Your task to perform on an android device: move a message to another label in the gmail app Image 0: 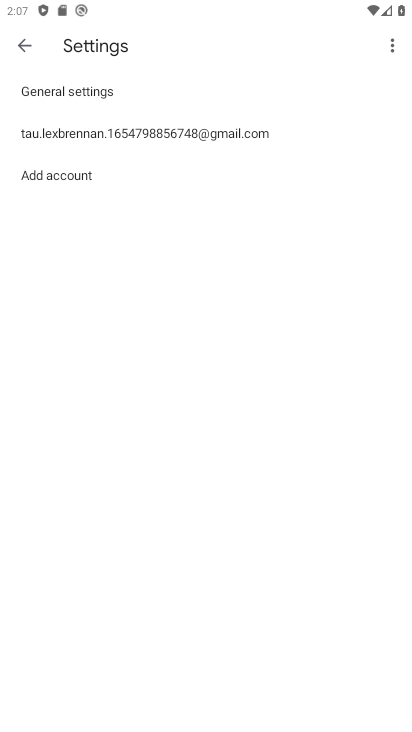
Step 0: click (11, 31)
Your task to perform on an android device: move a message to another label in the gmail app Image 1: 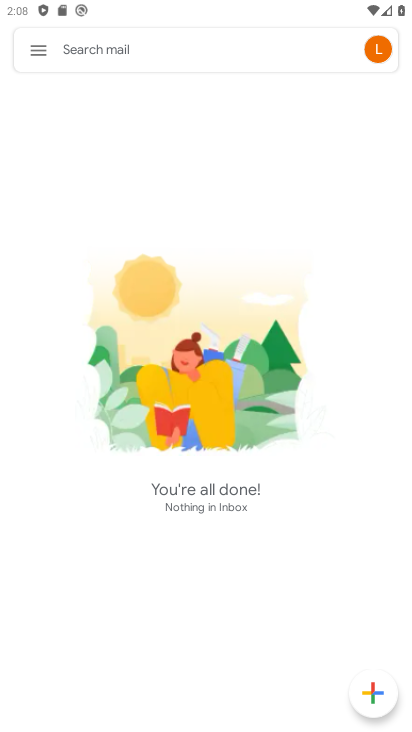
Step 1: press back button
Your task to perform on an android device: move a message to another label in the gmail app Image 2: 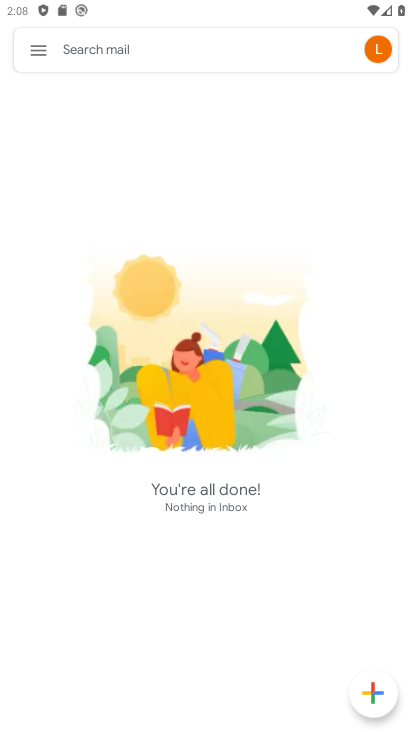
Step 2: press back button
Your task to perform on an android device: move a message to another label in the gmail app Image 3: 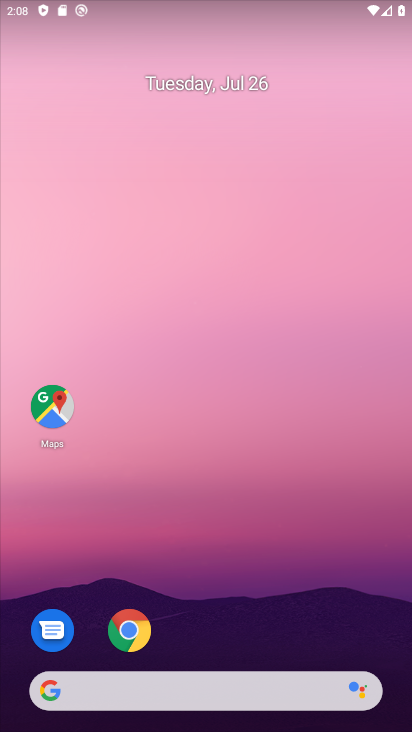
Step 3: drag from (228, 621) to (174, 151)
Your task to perform on an android device: move a message to another label in the gmail app Image 4: 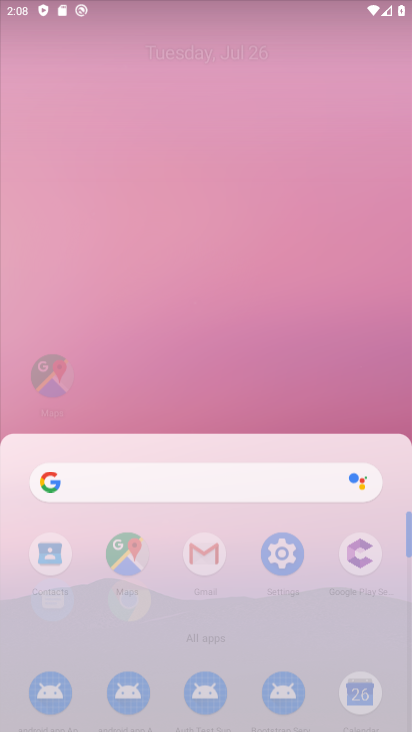
Step 4: drag from (204, 493) to (190, 216)
Your task to perform on an android device: move a message to another label in the gmail app Image 5: 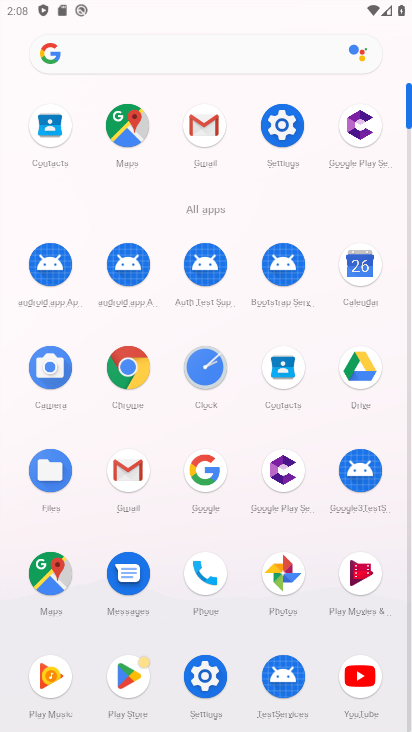
Step 5: click (114, 466)
Your task to perform on an android device: move a message to another label in the gmail app Image 6: 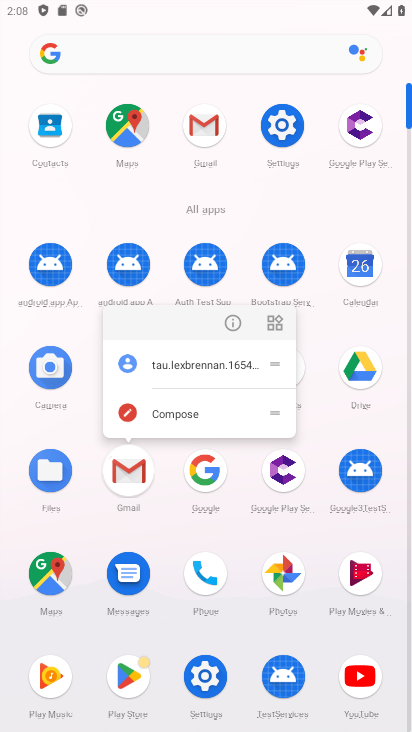
Step 6: click (116, 466)
Your task to perform on an android device: move a message to another label in the gmail app Image 7: 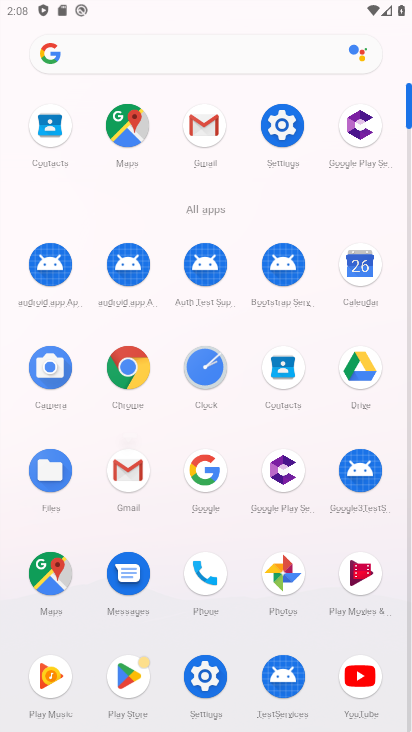
Step 7: click (119, 466)
Your task to perform on an android device: move a message to another label in the gmail app Image 8: 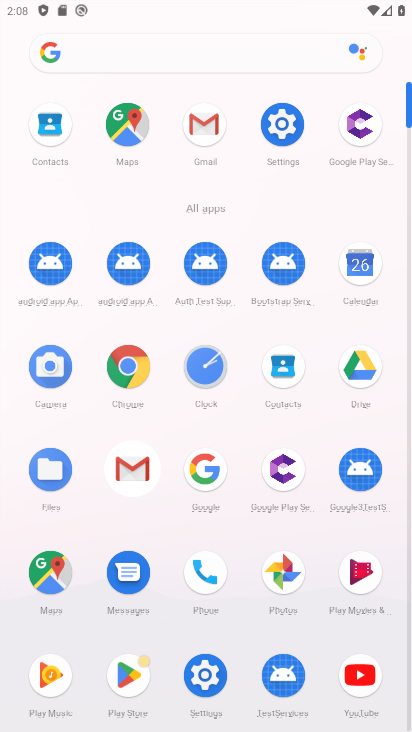
Step 8: click (122, 466)
Your task to perform on an android device: move a message to another label in the gmail app Image 9: 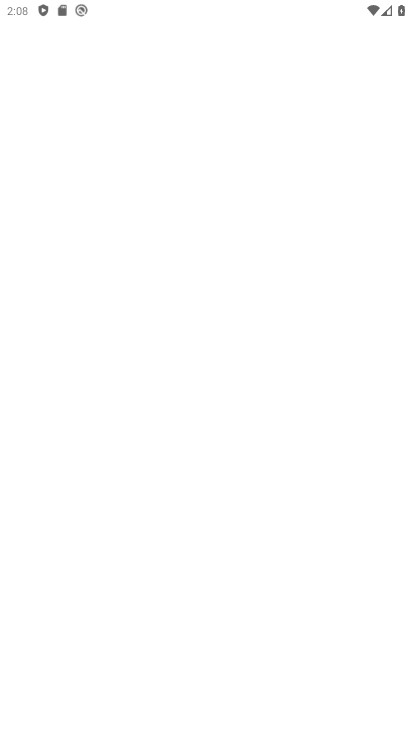
Step 9: click (123, 466)
Your task to perform on an android device: move a message to another label in the gmail app Image 10: 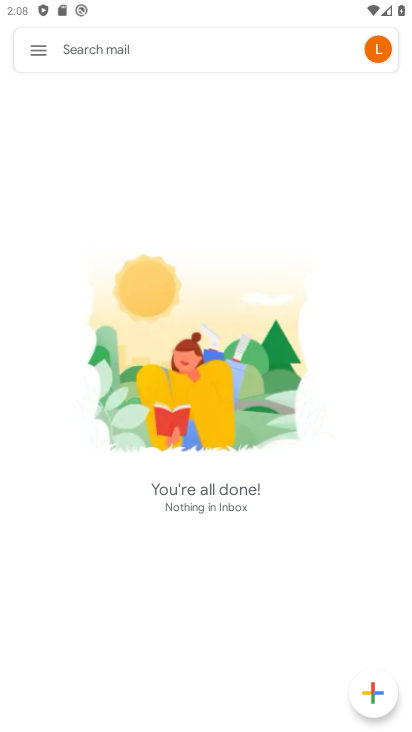
Step 10: click (26, 45)
Your task to perform on an android device: move a message to another label in the gmail app Image 11: 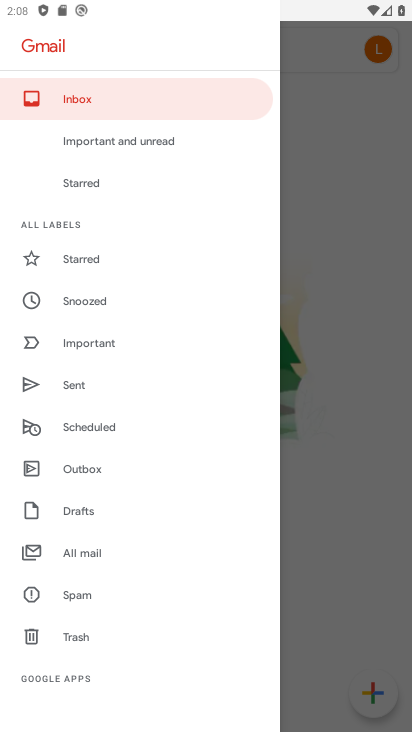
Step 11: drag from (111, 615) to (145, 376)
Your task to perform on an android device: move a message to another label in the gmail app Image 12: 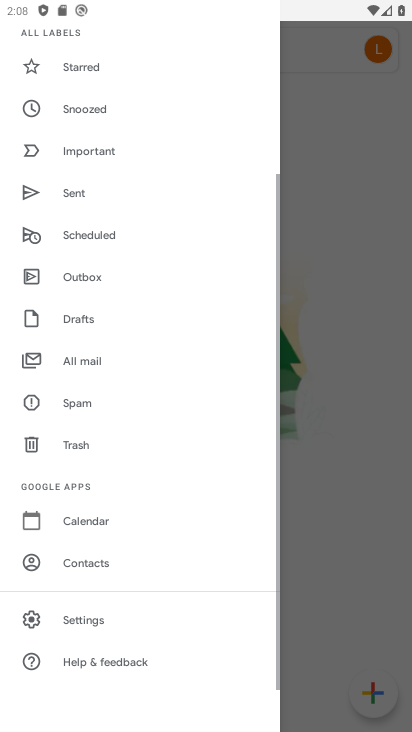
Step 12: drag from (163, 549) to (191, 295)
Your task to perform on an android device: move a message to another label in the gmail app Image 13: 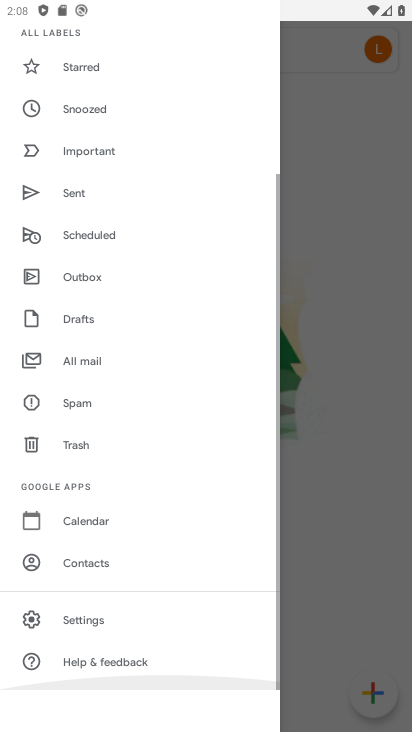
Step 13: drag from (151, 463) to (182, 333)
Your task to perform on an android device: move a message to another label in the gmail app Image 14: 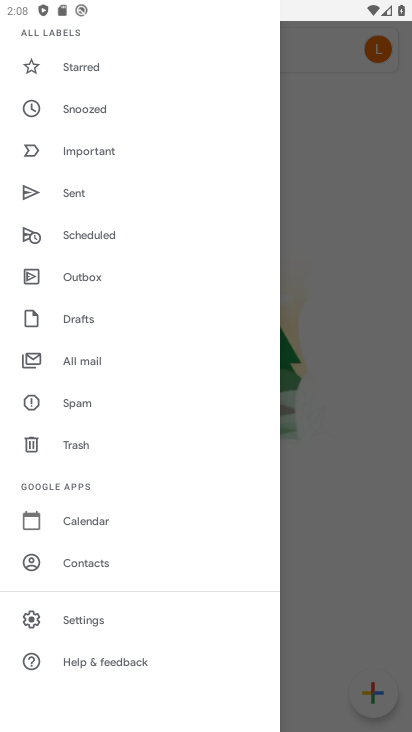
Step 14: click (76, 617)
Your task to perform on an android device: move a message to another label in the gmail app Image 15: 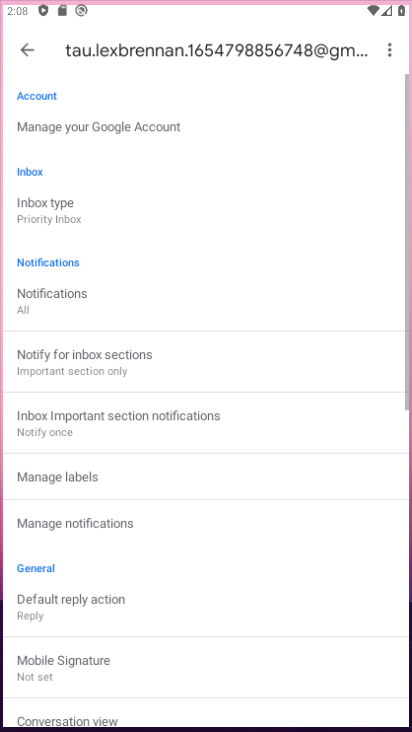
Step 15: click (88, 609)
Your task to perform on an android device: move a message to another label in the gmail app Image 16: 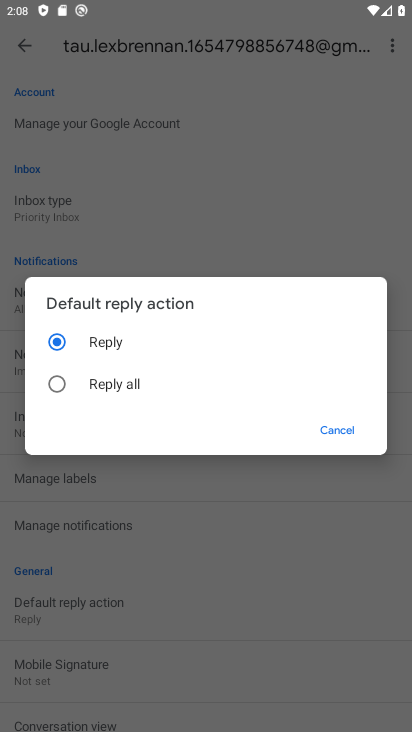
Step 16: click (234, 193)
Your task to perform on an android device: move a message to another label in the gmail app Image 17: 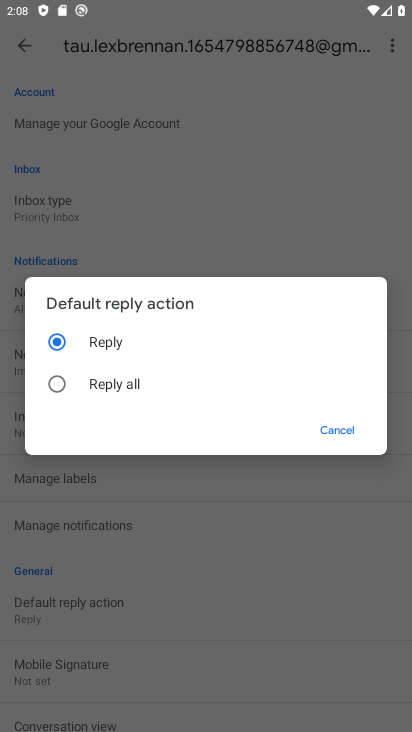
Step 17: click (244, 198)
Your task to perform on an android device: move a message to another label in the gmail app Image 18: 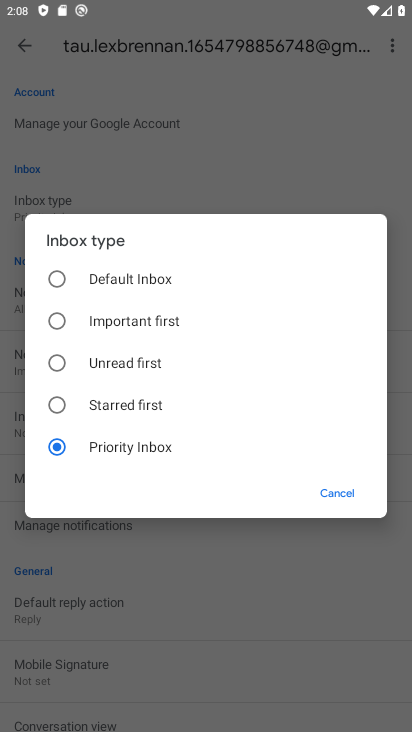
Step 18: click (333, 492)
Your task to perform on an android device: move a message to another label in the gmail app Image 19: 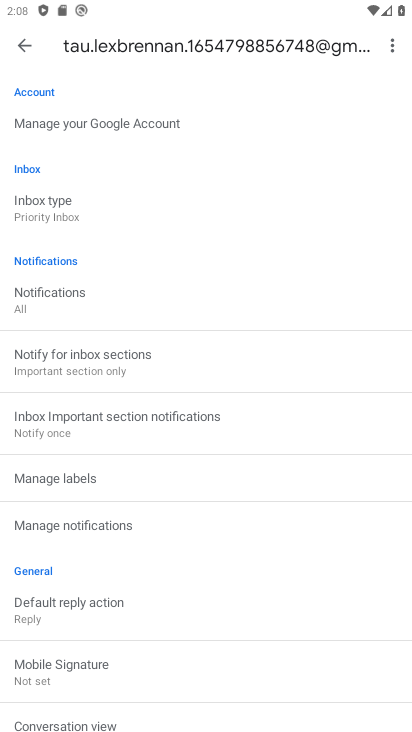
Step 19: click (29, 45)
Your task to perform on an android device: move a message to another label in the gmail app Image 20: 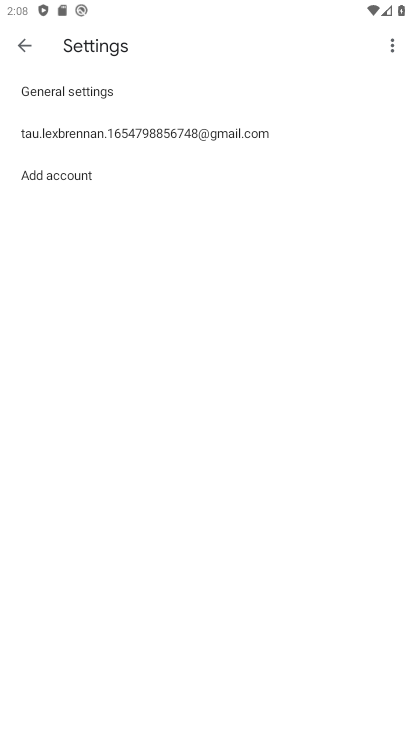
Step 20: click (20, 49)
Your task to perform on an android device: move a message to another label in the gmail app Image 21: 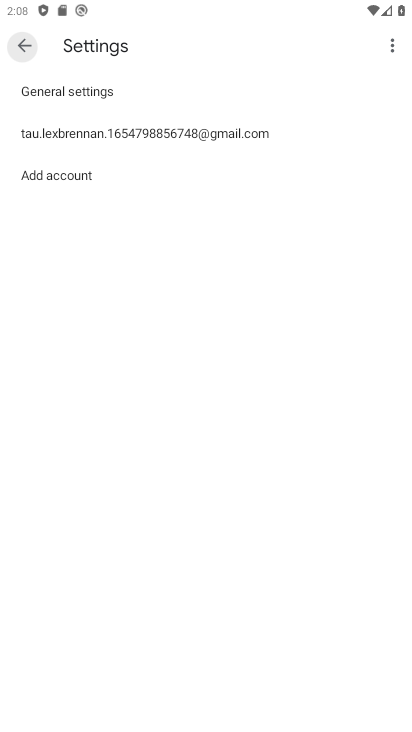
Step 21: click (17, 46)
Your task to perform on an android device: move a message to another label in the gmail app Image 22: 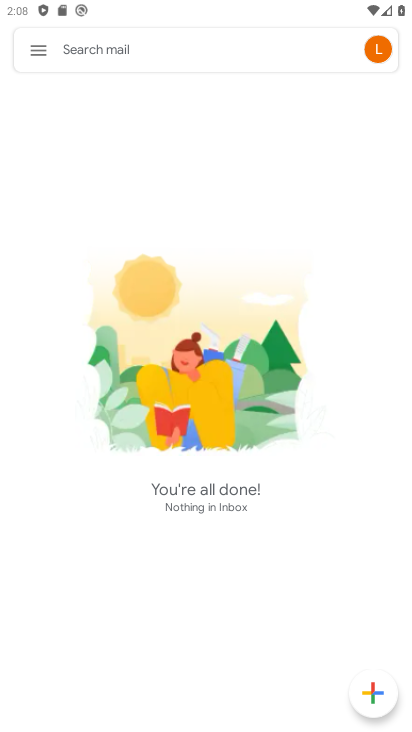
Step 22: press back button
Your task to perform on an android device: move a message to another label in the gmail app Image 23: 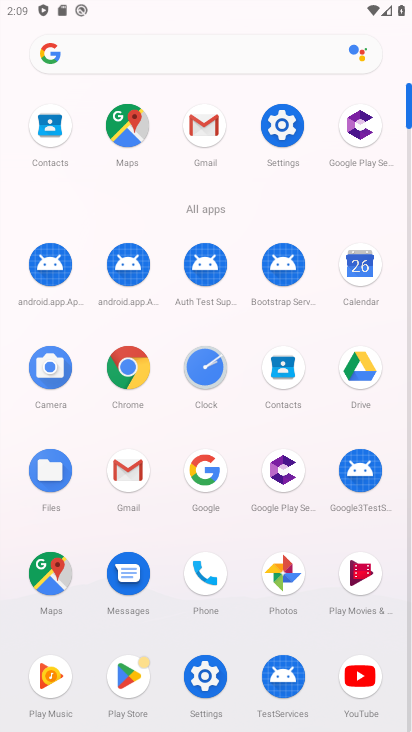
Step 23: click (123, 473)
Your task to perform on an android device: move a message to another label in the gmail app Image 24: 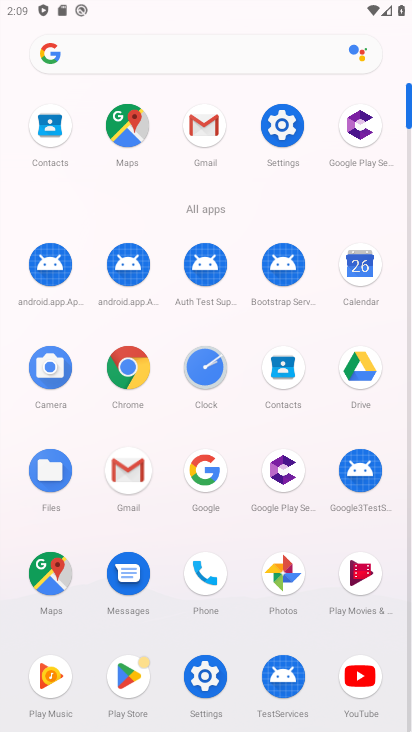
Step 24: click (128, 466)
Your task to perform on an android device: move a message to another label in the gmail app Image 25: 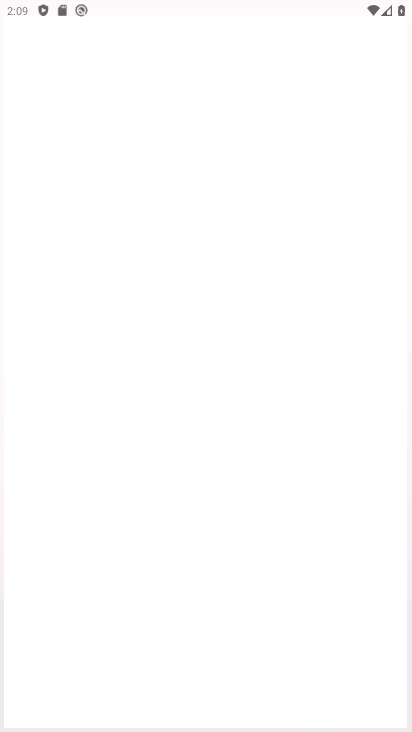
Step 25: click (131, 472)
Your task to perform on an android device: move a message to another label in the gmail app Image 26: 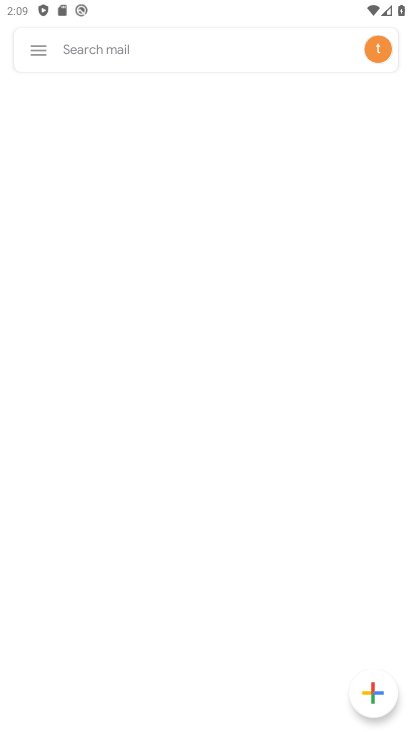
Step 26: click (131, 468)
Your task to perform on an android device: move a message to another label in the gmail app Image 27: 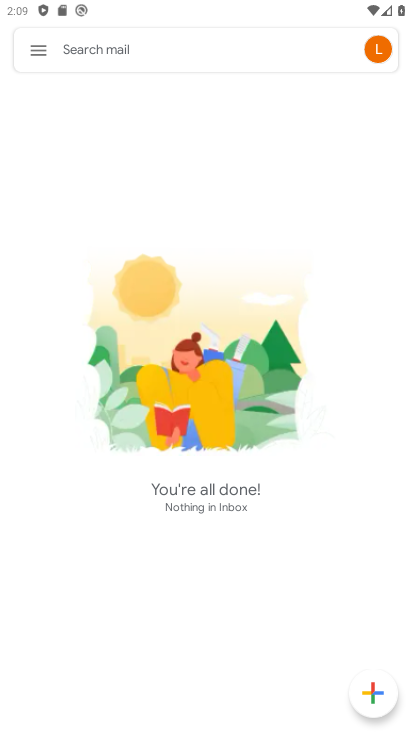
Step 27: click (37, 57)
Your task to perform on an android device: move a message to another label in the gmail app Image 28: 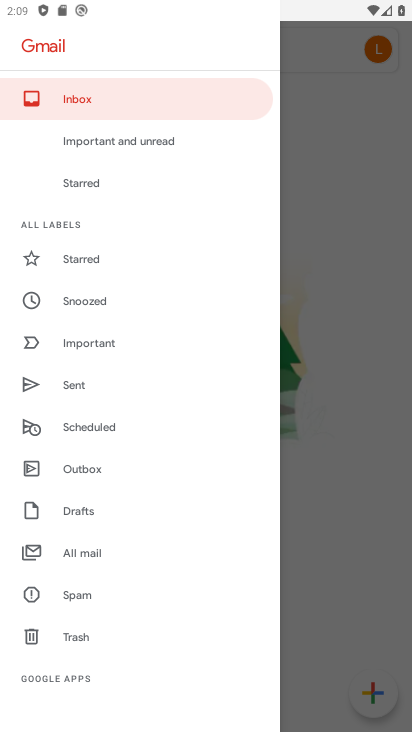
Step 28: click (83, 538)
Your task to perform on an android device: move a message to another label in the gmail app Image 29: 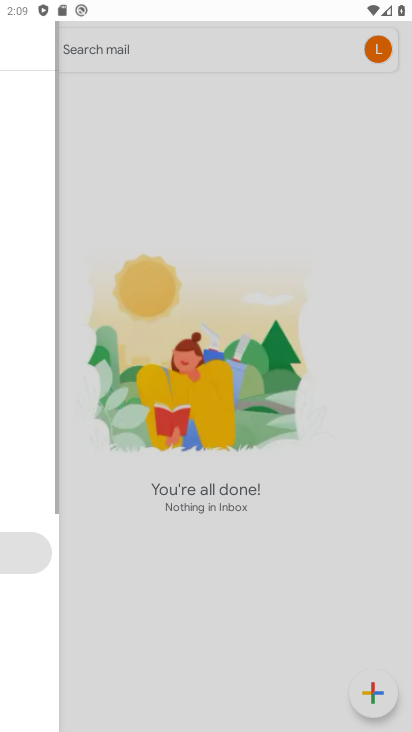
Step 29: click (85, 545)
Your task to perform on an android device: move a message to another label in the gmail app Image 30: 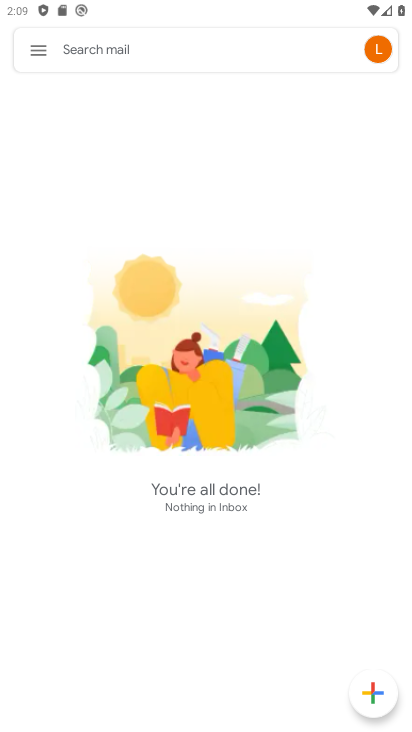
Step 30: click (88, 542)
Your task to perform on an android device: move a message to another label in the gmail app Image 31: 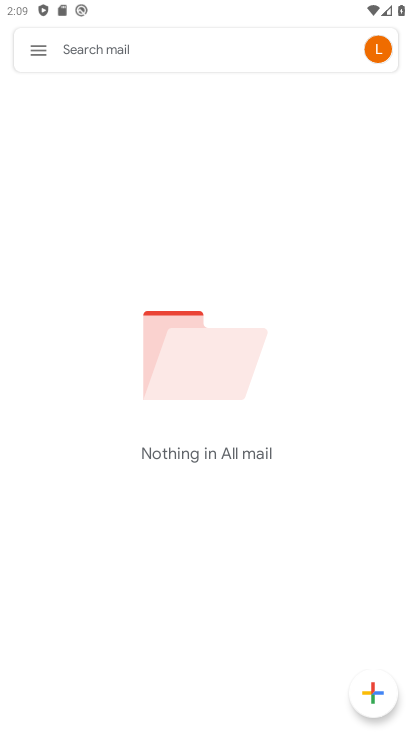
Step 31: task complete